Your task to perform on an android device: Open the clock Image 0: 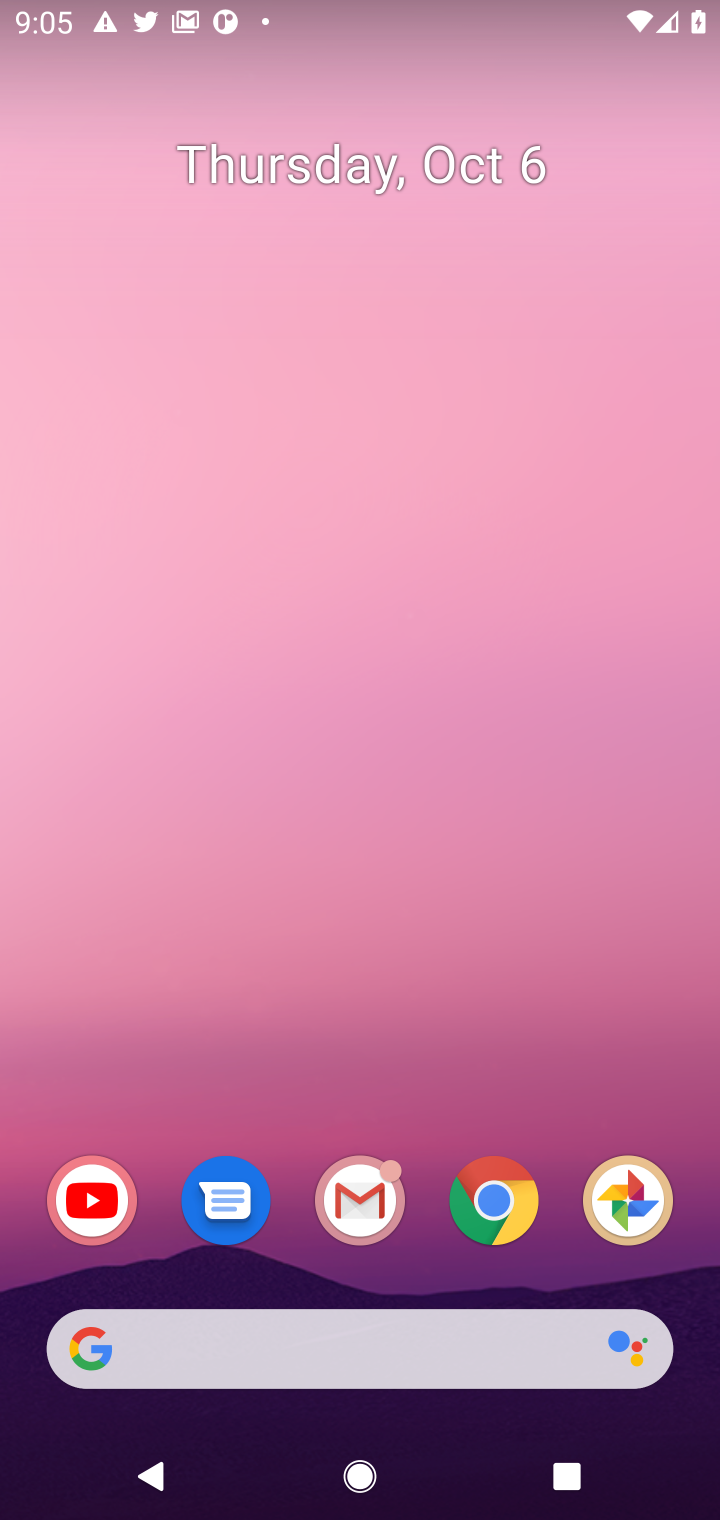
Step 0: click (493, 1224)
Your task to perform on an android device: Open the clock Image 1: 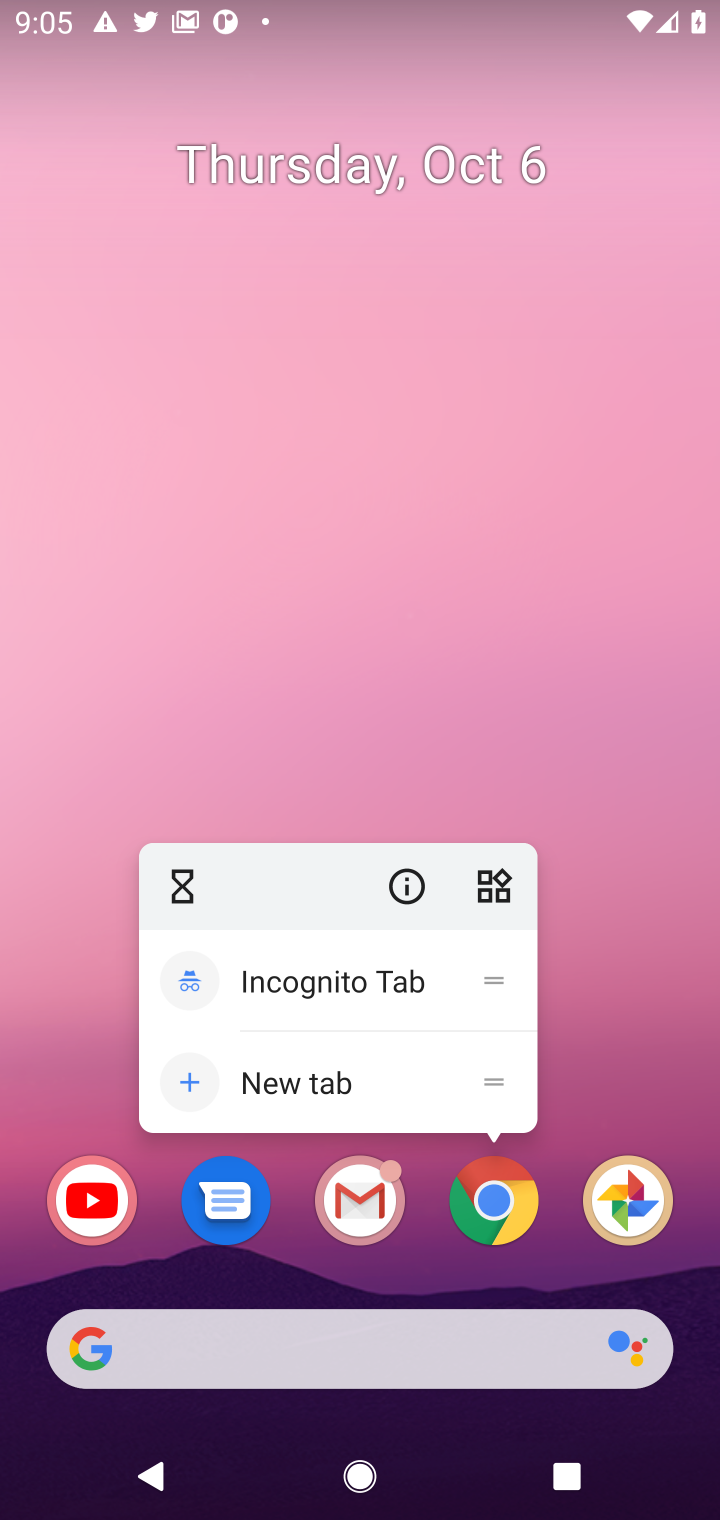
Step 1: click (495, 1220)
Your task to perform on an android device: Open the clock Image 2: 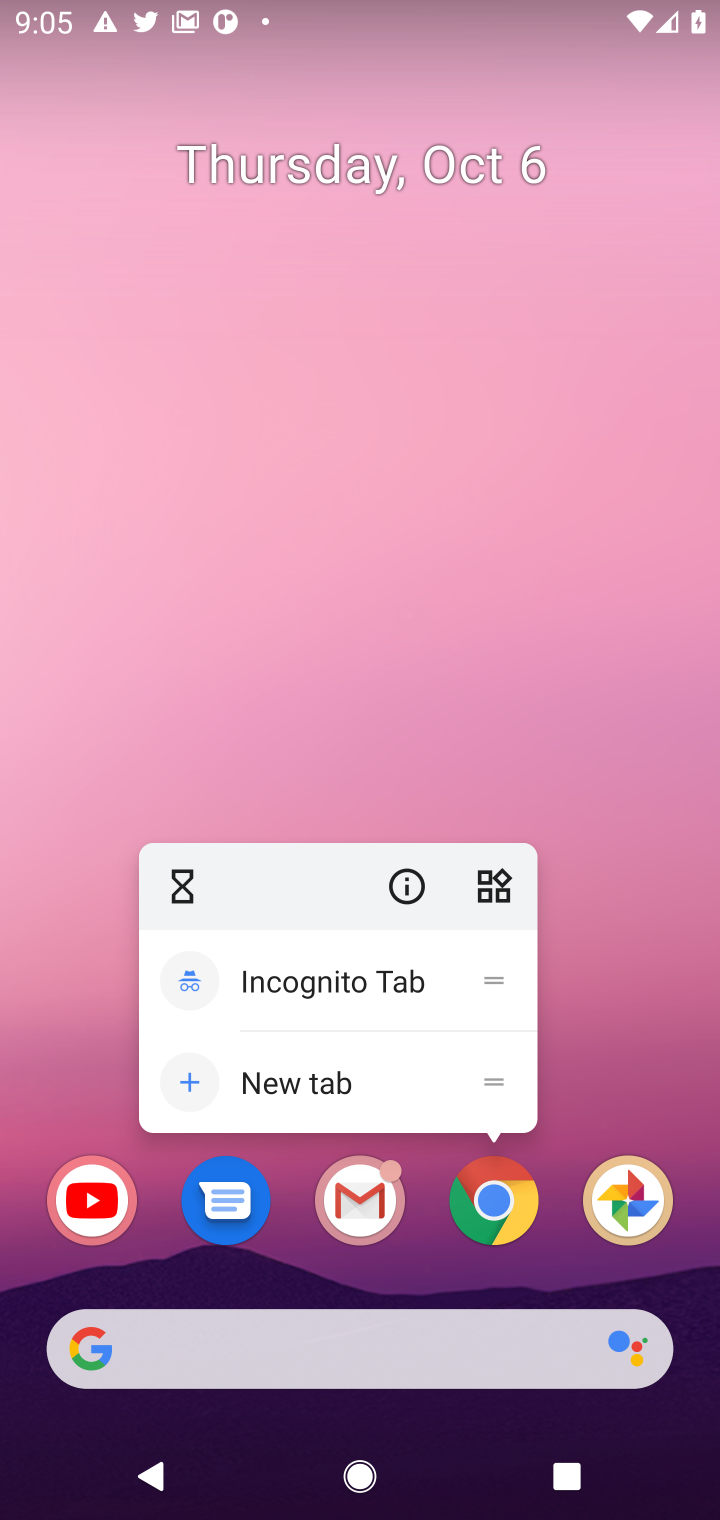
Step 2: press home button
Your task to perform on an android device: Open the clock Image 3: 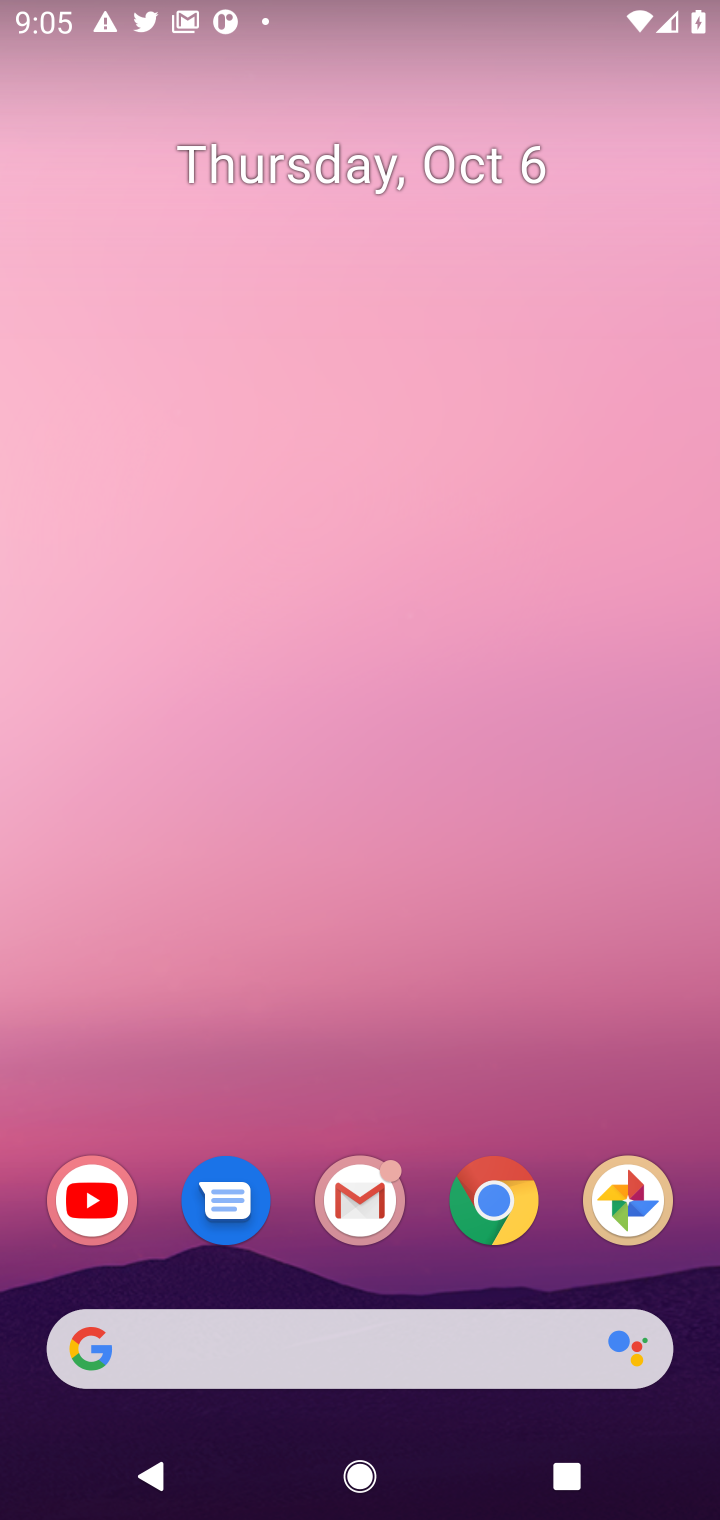
Step 3: click (493, 1163)
Your task to perform on an android device: Open the clock Image 4: 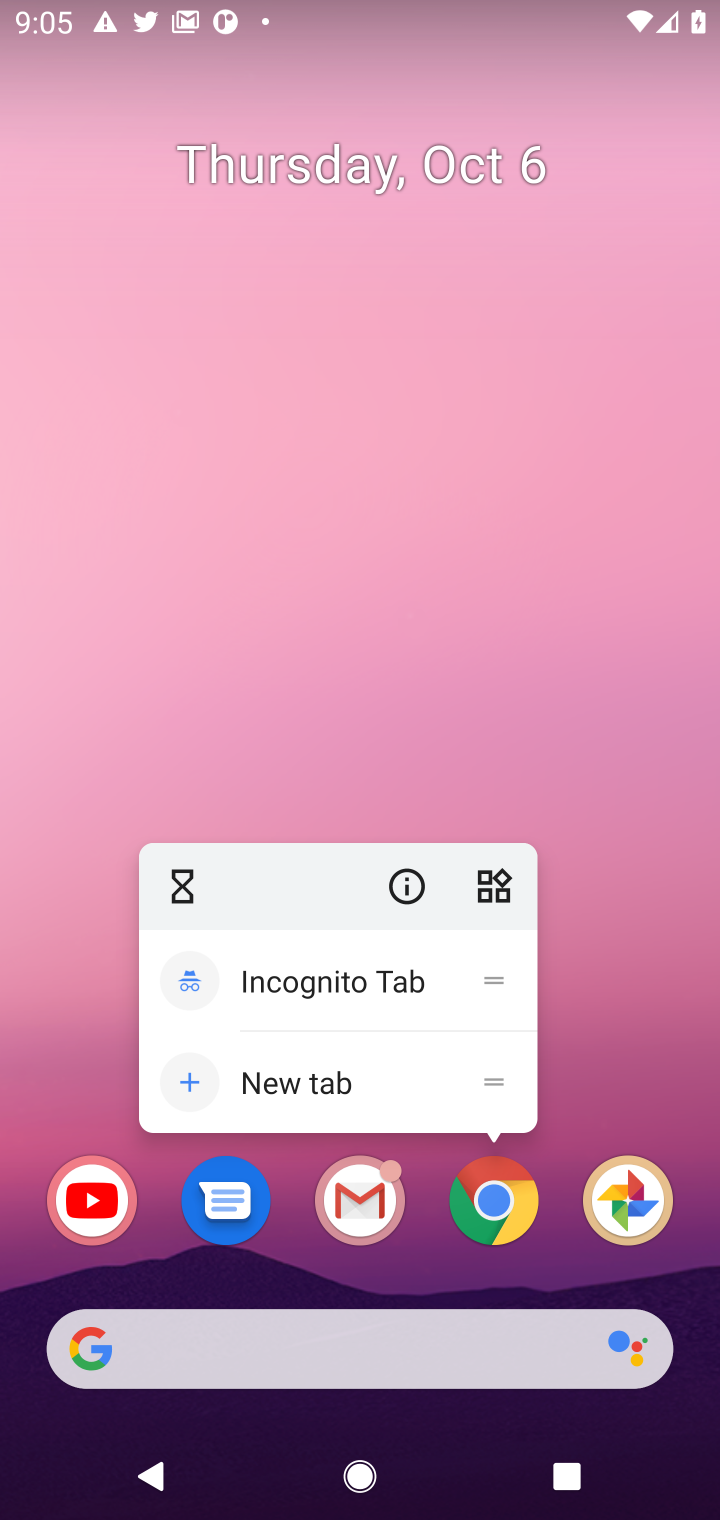
Step 4: press back button
Your task to perform on an android device: Open the clock Image 5: 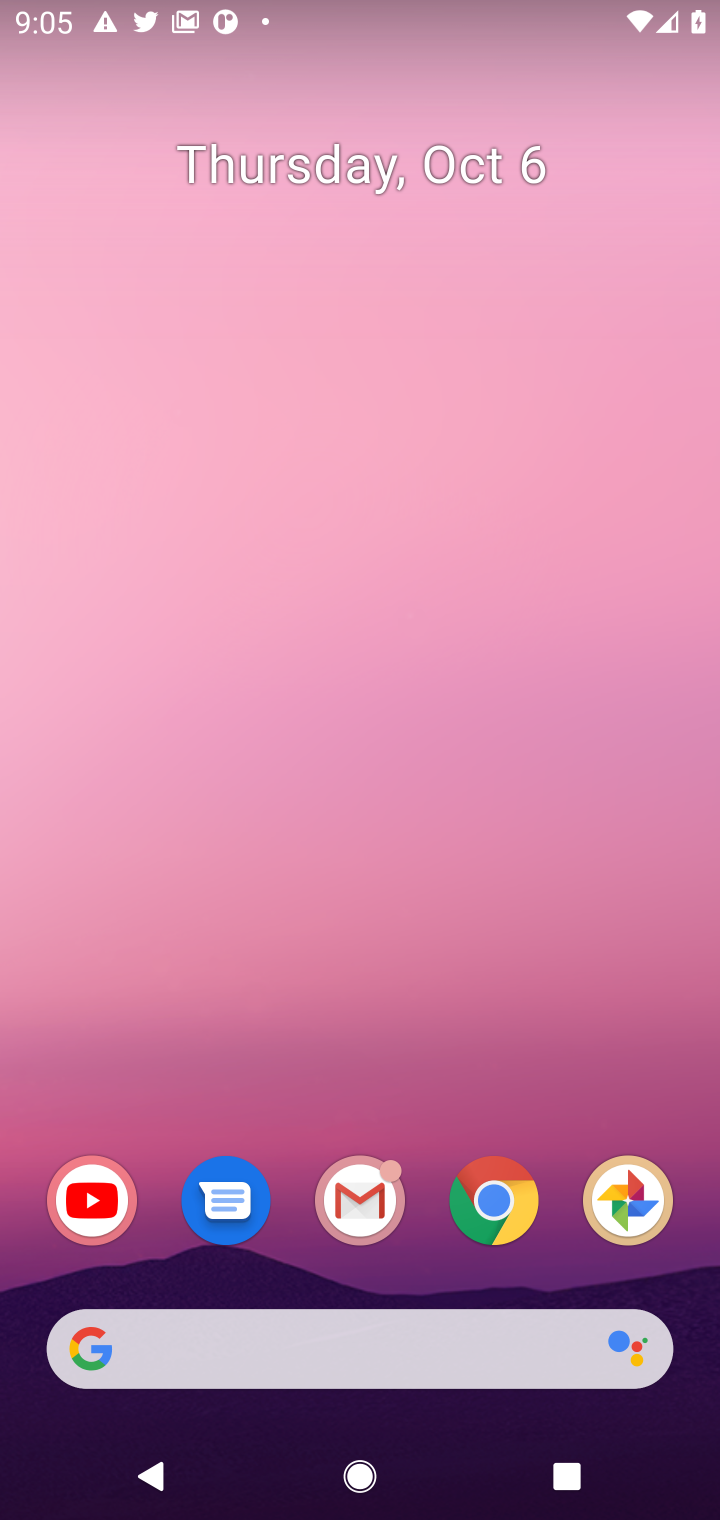
Step 5: click (501, 1173)
Your task to perform on an android device: Open the clock Image 6: 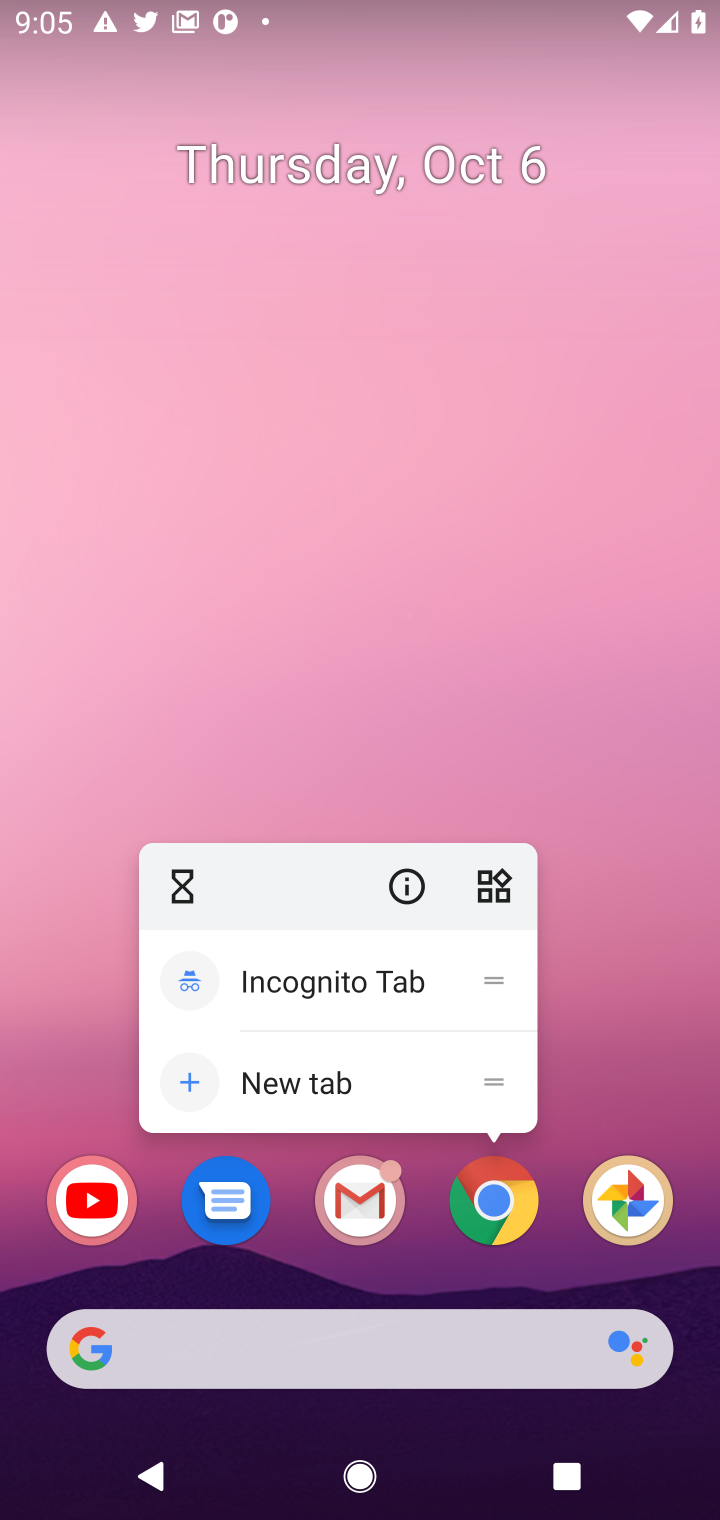
Step 6: press back button
Your task to perform on an android device: Open the clock Image 7: 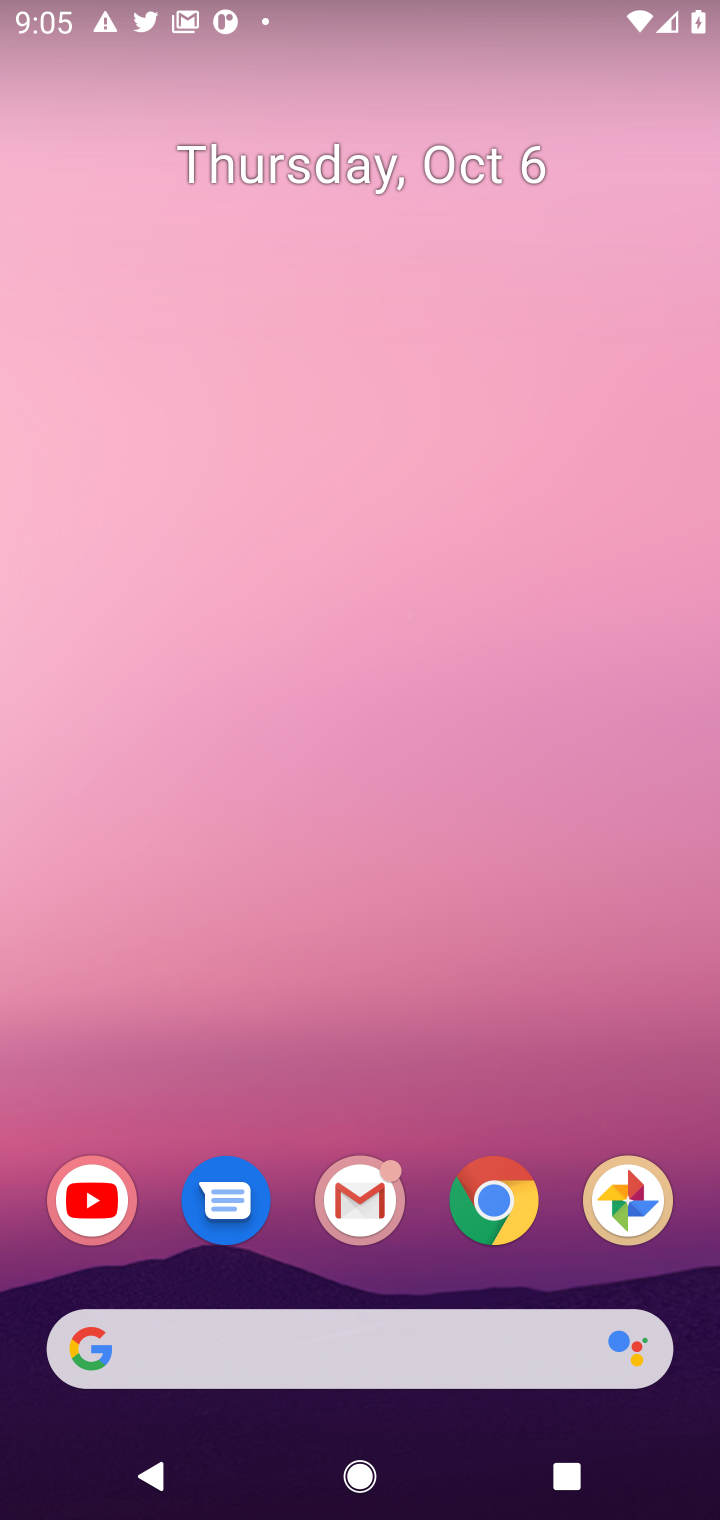
Step 7: press home button
Your task to perform on an android device: Open the clock Image 8: 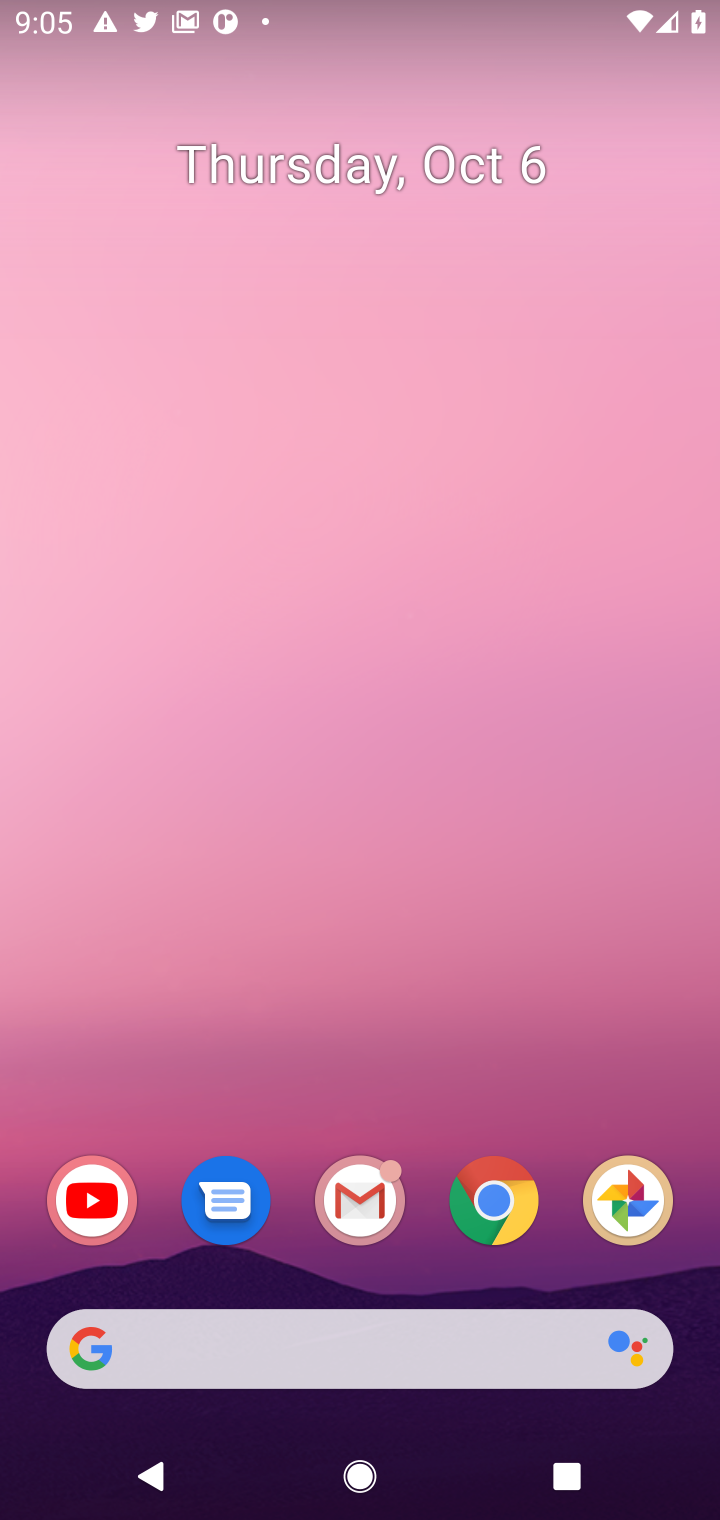
Step 8: click (507, 1170)
Your task to perform on an android device: Open the clock Image 9: 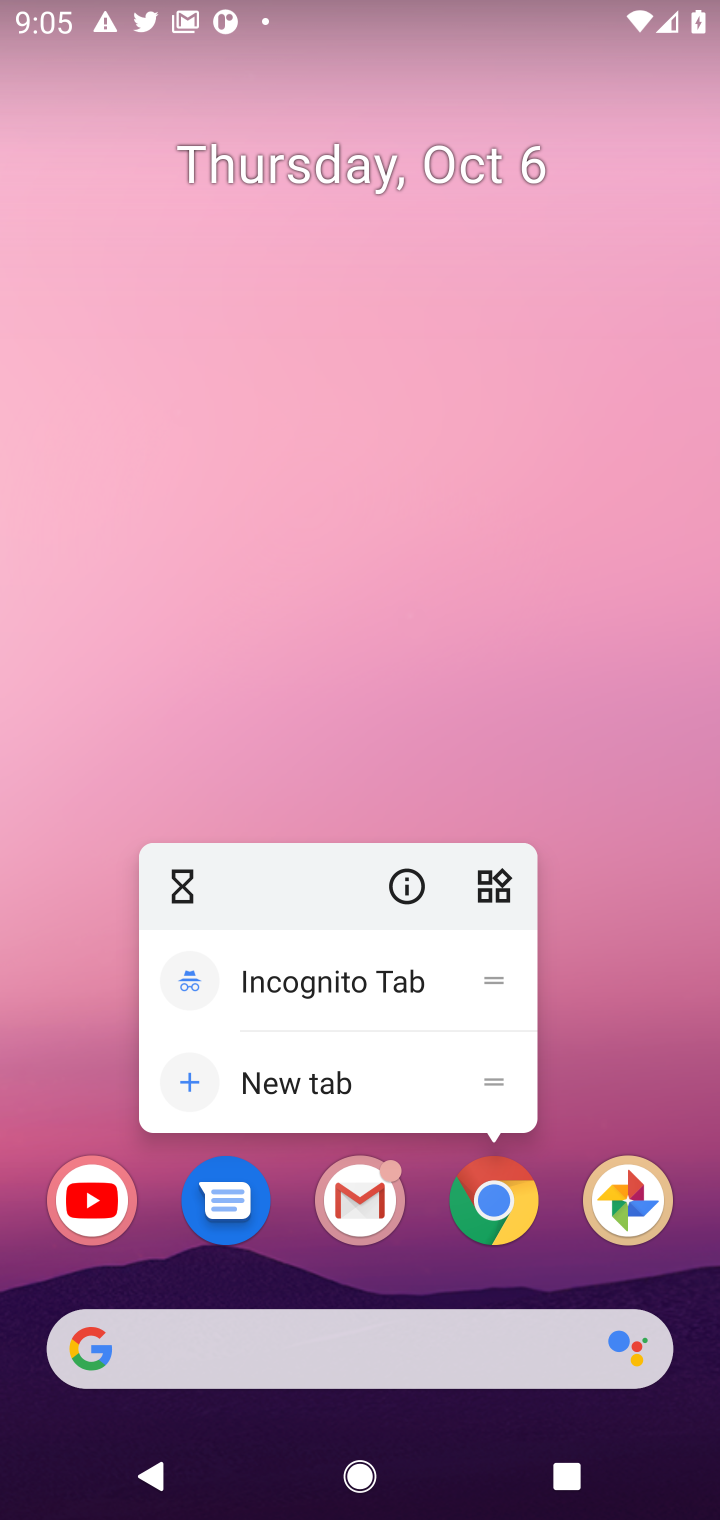
Step 9: click (495, 1223)
Your task to perform on an android device: Open the clock Image 10: 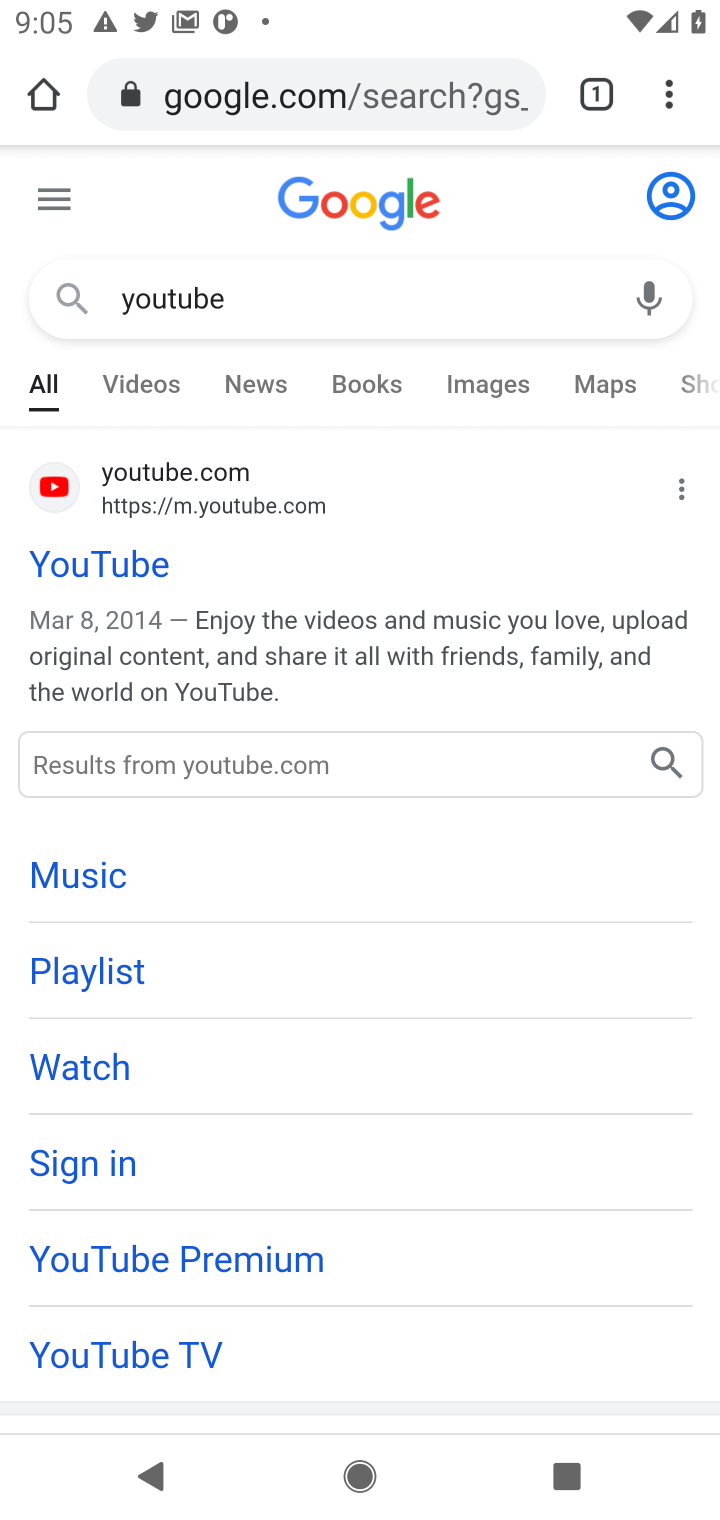
Step 10: click (314, 90)
Your task to perform on an android device: Open the clock Image 11: 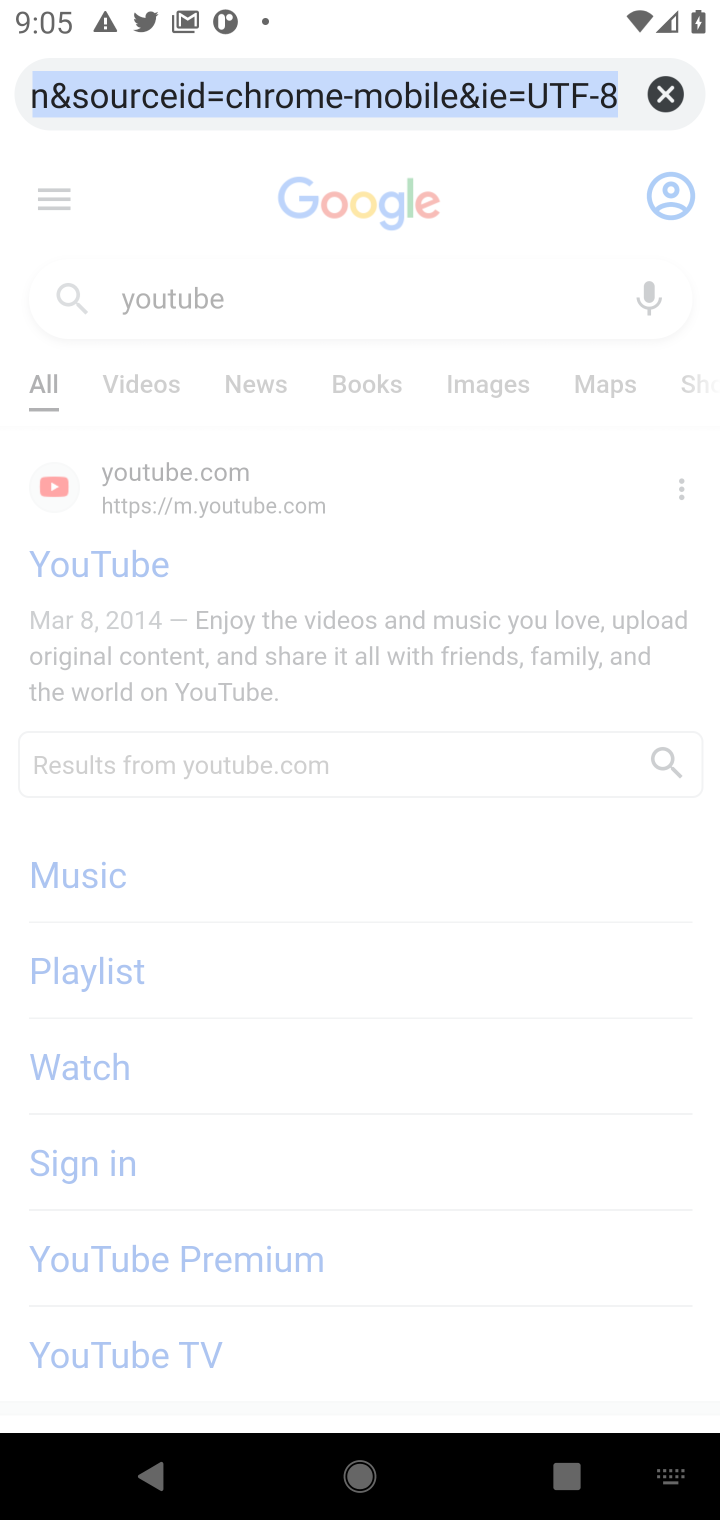
Step 11: click (668, 97)
Your task to perform on an android device: Open the clock Image 12: 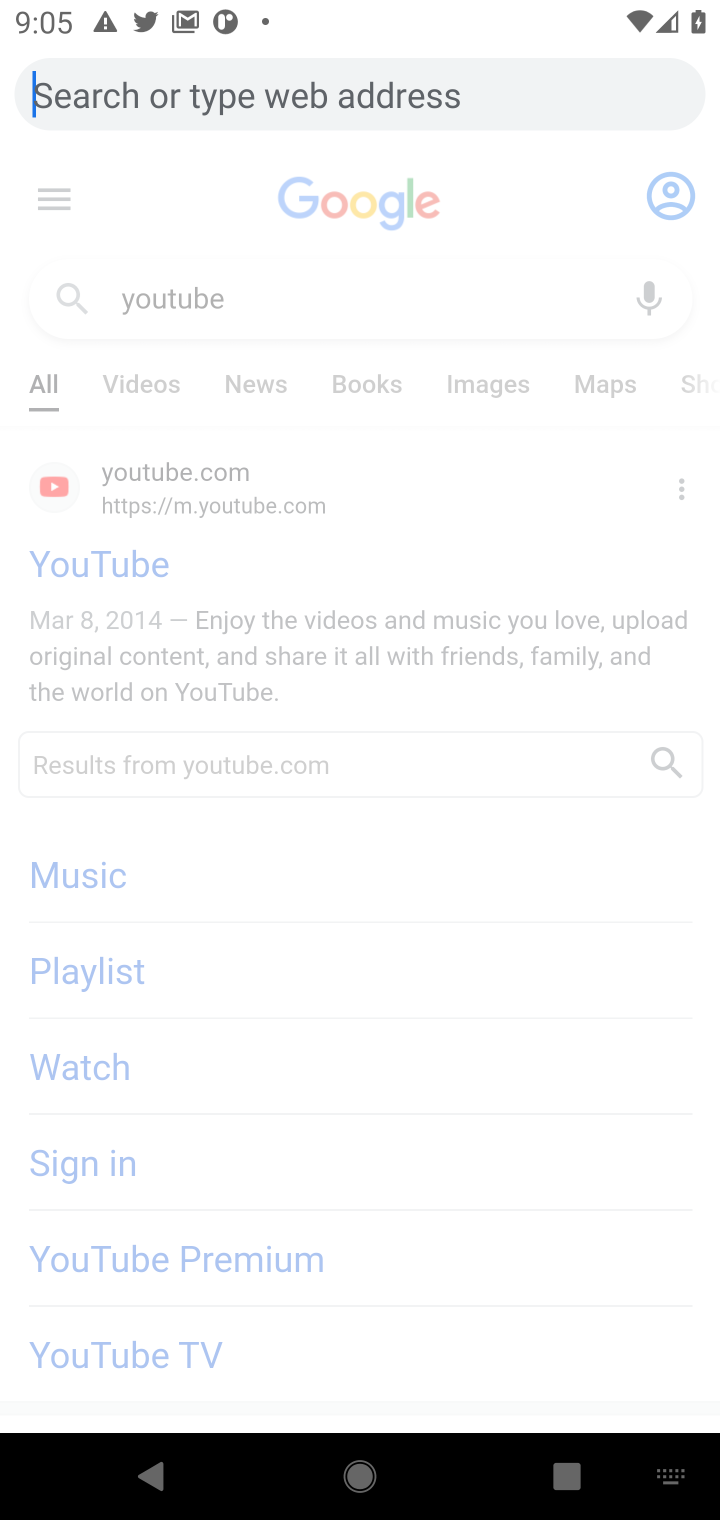
Step 12: type "open the clock"
Your task to perform on an android device: Open the clock Image 13: 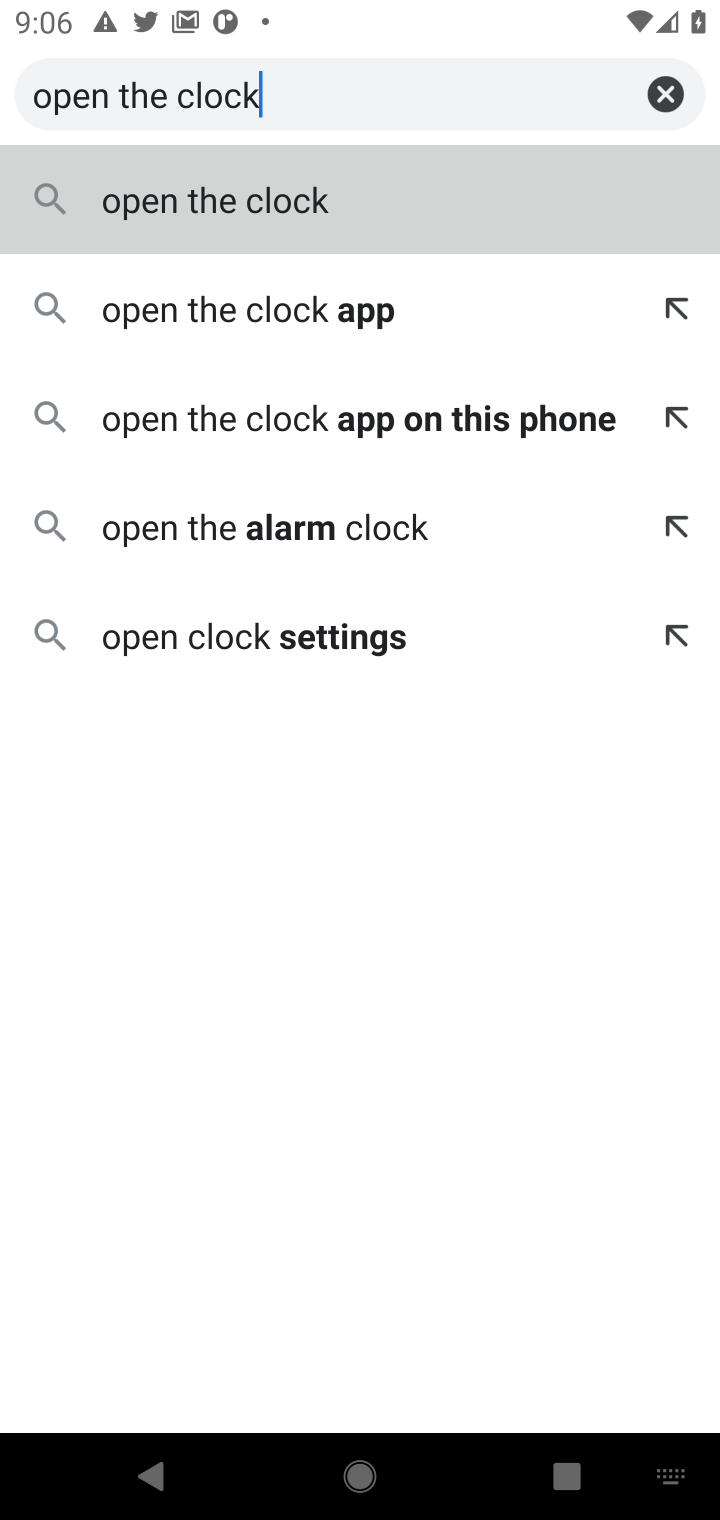
Step 13: type "opem "
Your task to perform on an android device: Open the clock Image 14: 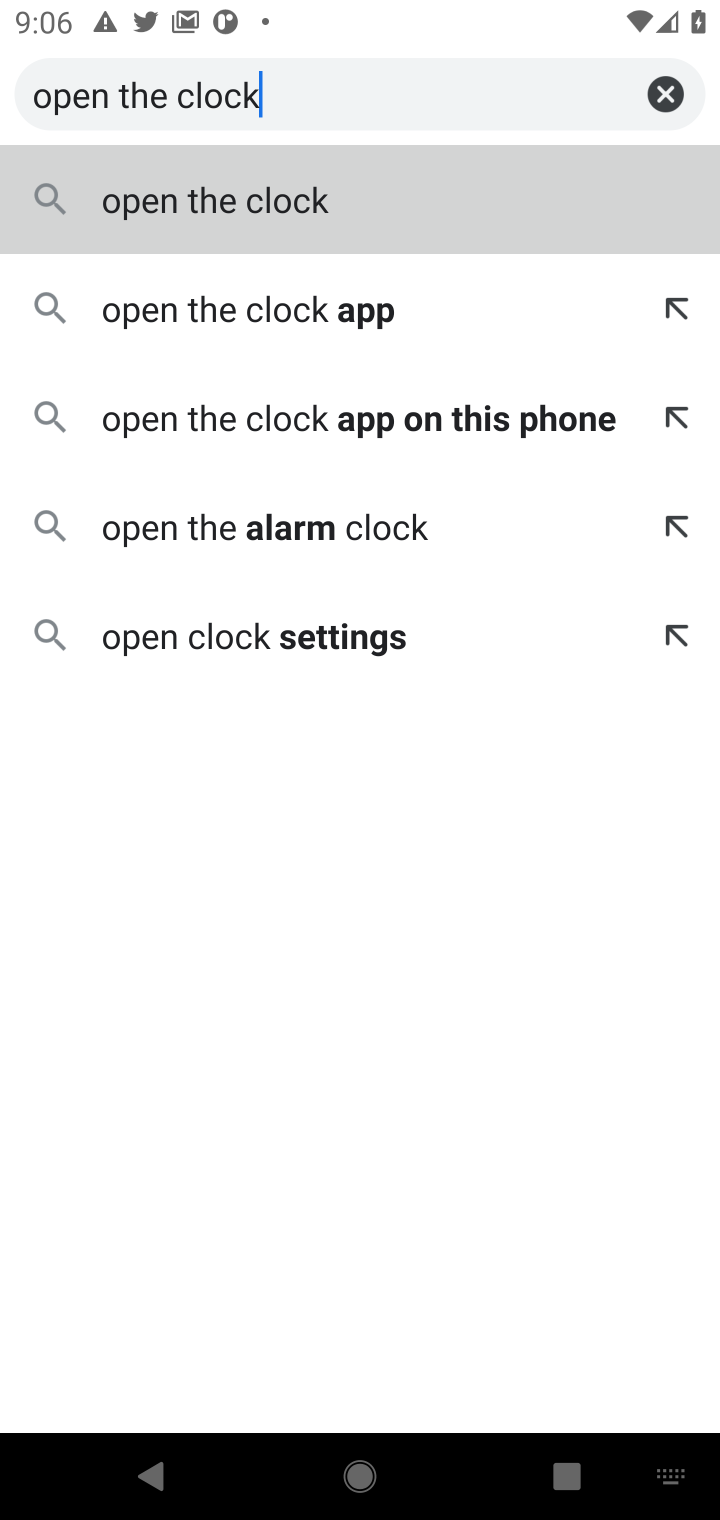
Step 14: click (260, 197)
Your task to perform on an android device: Open the clock Image 15: 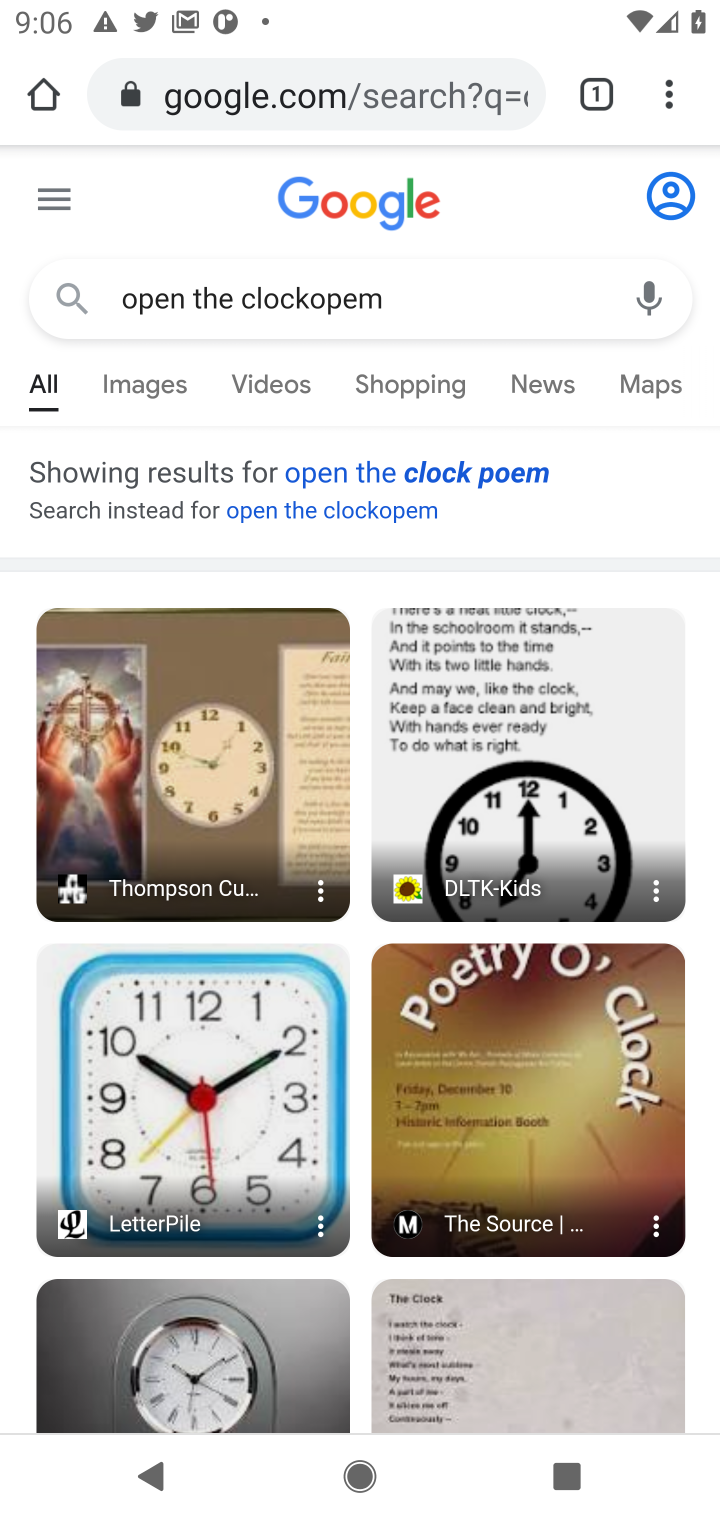
Step 15: task complete